Your task to perform on an android device: Go to Google maps Image 0: 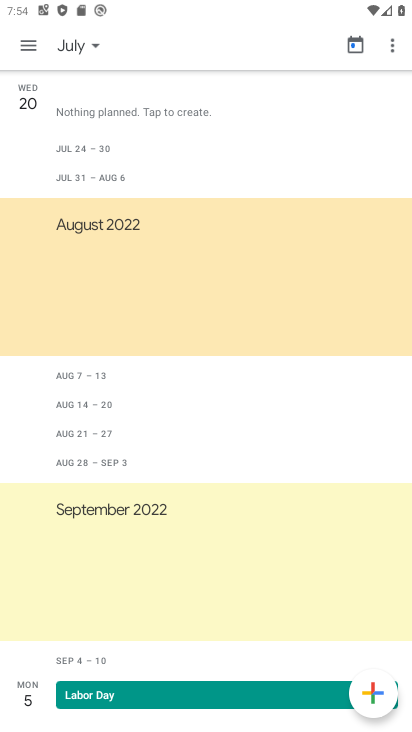
Step 0: press home button
Your task to perform on an android device: Go to Google maps Image 1: 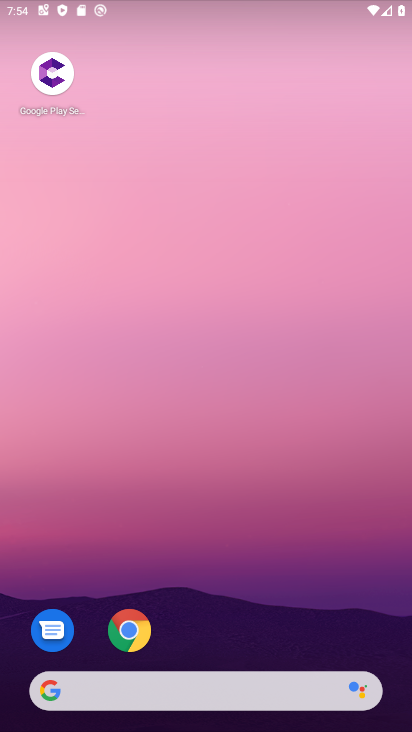
Step 1: drag from (293, 613) to (226, 54)
Your task to perform on an android device: Go to Google maps Image 2: 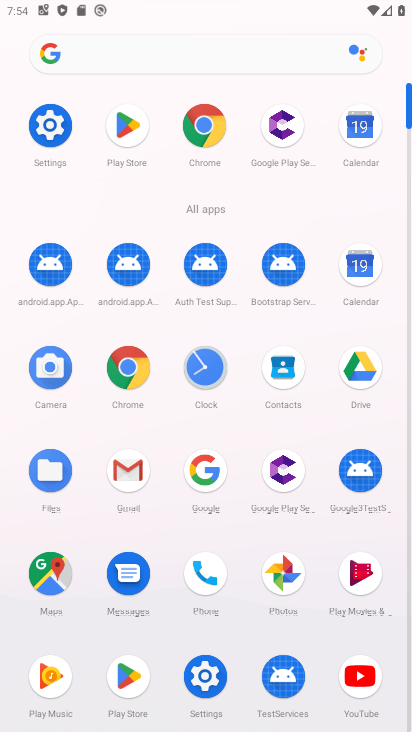
Step 2: click (38, 567)
Your task to perform on an android device: Go to Google maps Image 3: 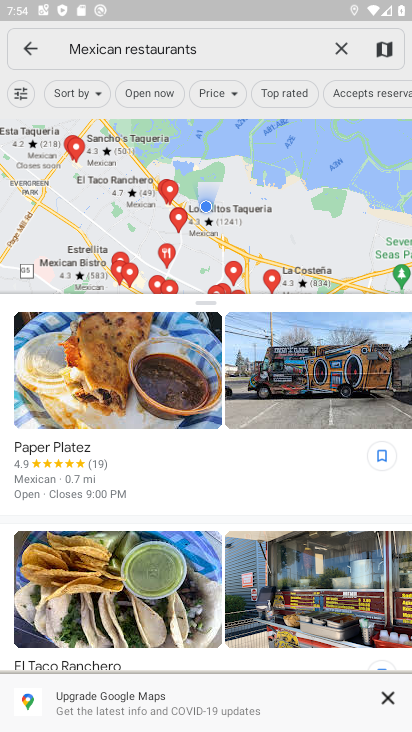
Step 3: task complete